Your task to perform on an android device: toggle sleep mode Image 0: 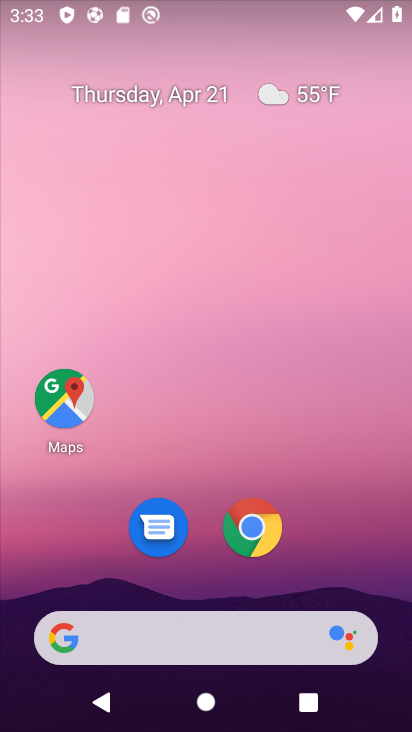
Step 0: drag from (309, 577) to (276, 138)
Your task to perform on an android device: toggle sleep mode Image 1: 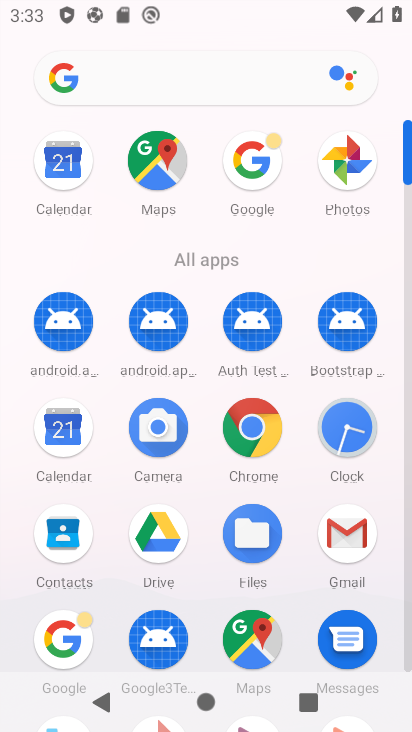
Step 1: task complete